Your task to perform on an android device: Open Reddit.com Image 0: 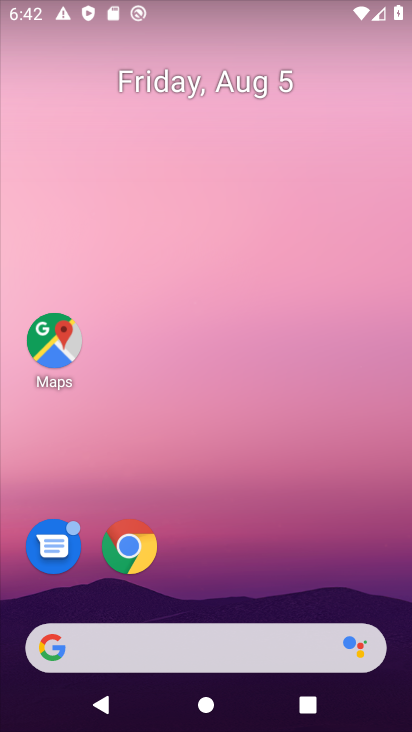
Step 0: drag from (176, 592) to (168, 157)
Your task to perform on an android device: Open Reddit.com Image 1: 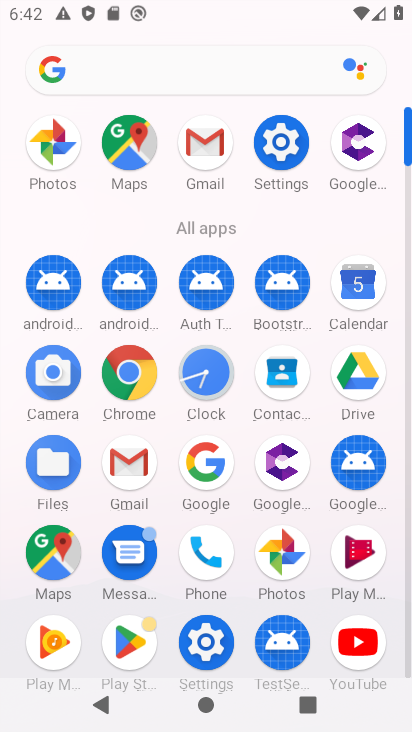
Step 1: click (149, 77)
Your task to perform on an android device: Open Reddit.com Image 2: 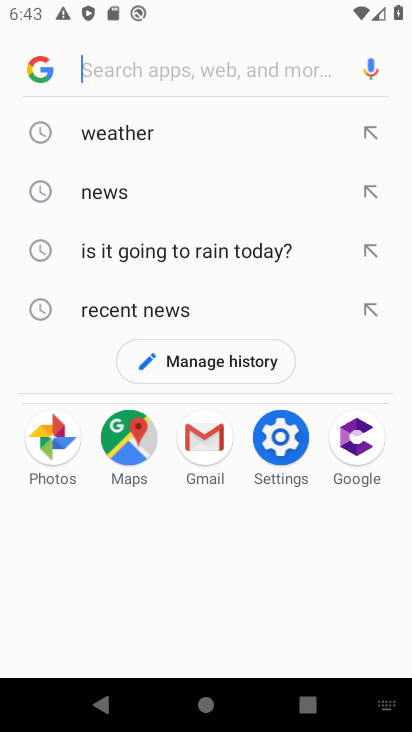
Step 2: type "Reddit.com"
Your task to perform on an android device: Open Reddit.com Image 3: 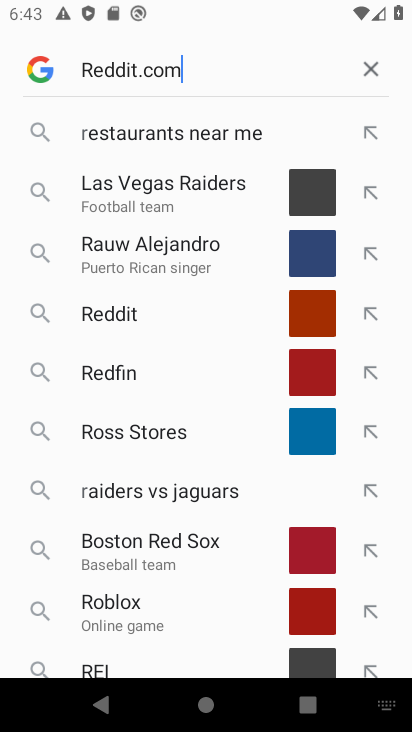
Step 3: type ""
Your task to perform on an android device: Open Reddit.com Image 4: 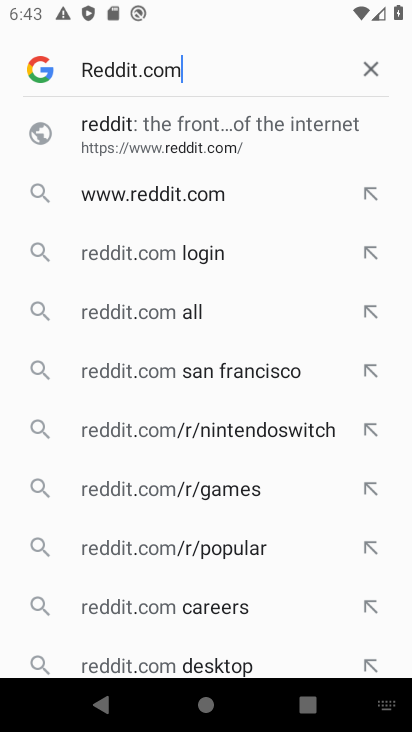
Step 4: click (116, 144)
Your task to perform on an android device: Open Reddit.com Image 5: 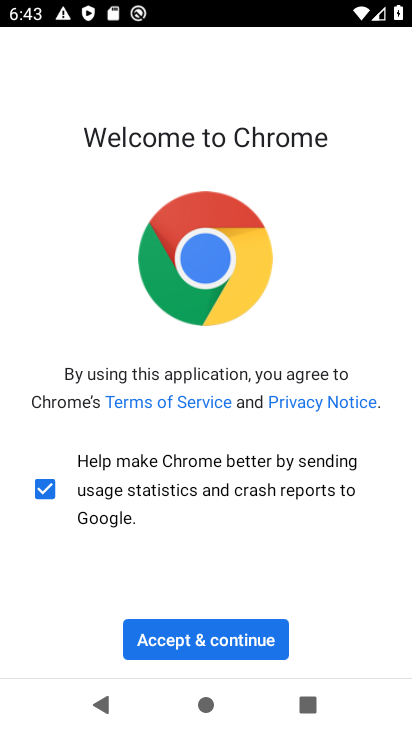
Step 5: drag from (229, 419) to (246, 289)
Your task to perform on an android device: Open Reddit.com Image 6: 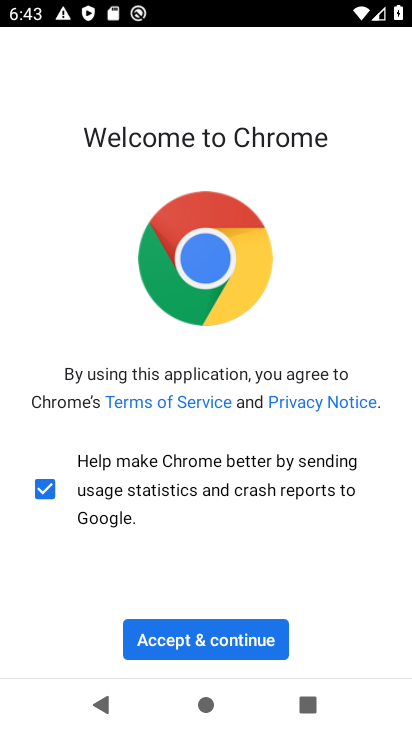
Step 6: drag from (258, 508) to (258, 324)
Your task to perform on an android device: Open Reddit.com Image 7: 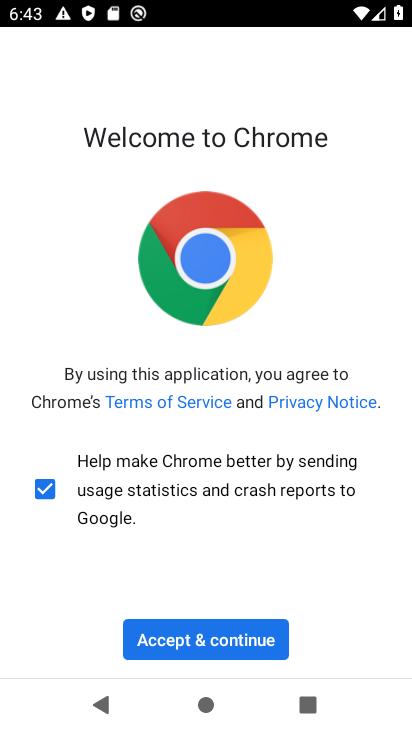
Step 7: click (196, 643)
Your task to perform on an android device: Open Reddit.com Image 8: 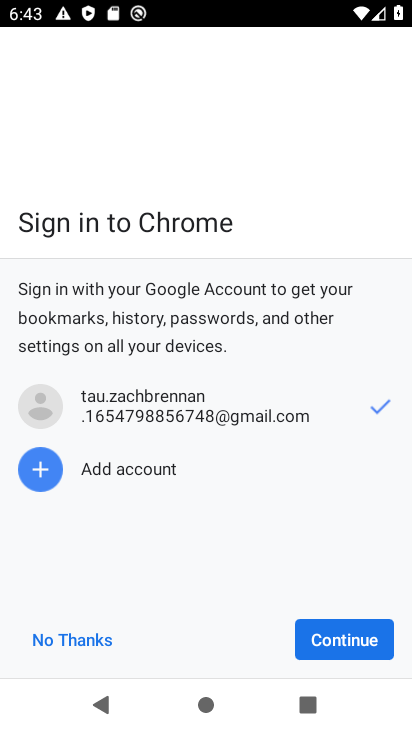
Step 8: click (202, 638)
Your task to perform on an android device: Open Reddit.com Image 9: 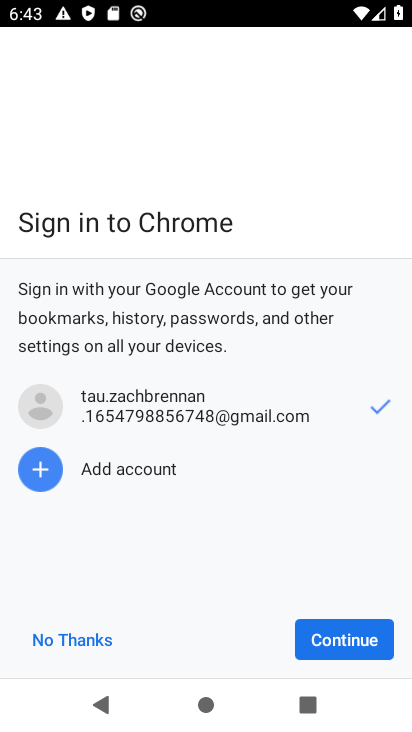
Step 9: click (326, 640)
Your task to perform on an android device: Open Reddit.com Image 10: 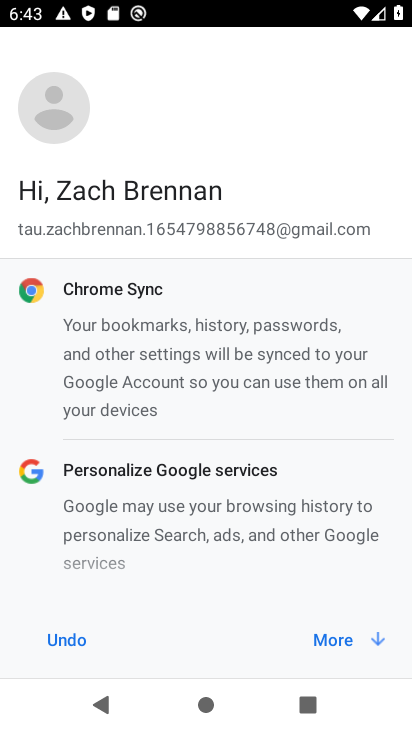
Step 10: drag from (215, 559) to (328, 209)
Your task to perform on an android device: Open Reddit.com Image 11: 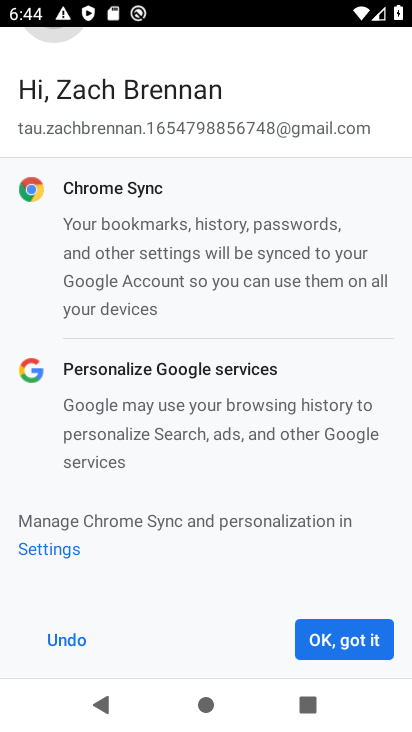
Step 11: click (346, 632)
Your task to perform on an android device: Open Reddit.com Image 12: 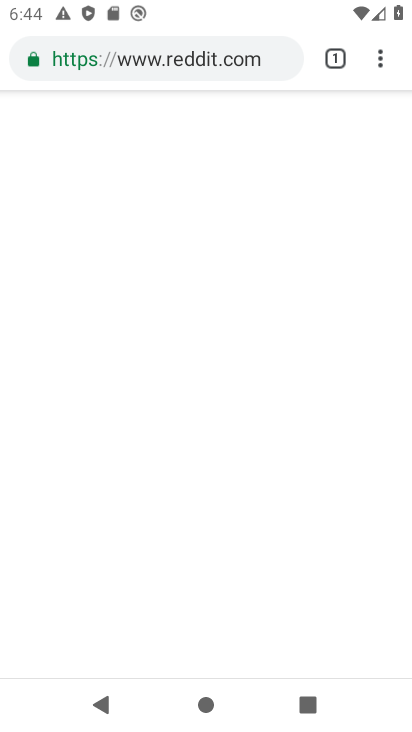
Step 12: task complete